Your task to perform on an android device: Go to Amazon Image 0: 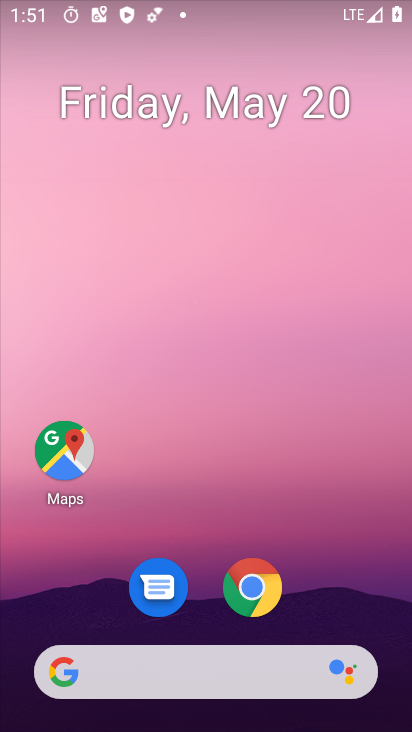
Step 0: drag from (335, 568) to (307, 199)
Your task to perform on an android device: Go to Amazon Image 1: 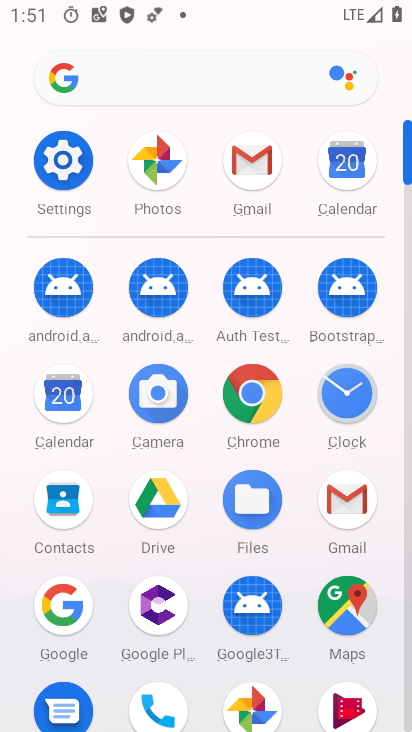
Step 1: click (252, 398)
Your task to perform on an android device: Go to Amazon Image 2: 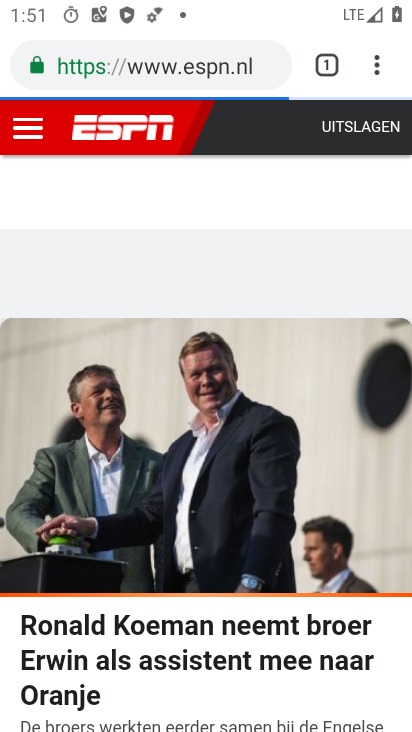
Step 2: click (201, 75)
Your task to perform on an android device: Go to Amazon Image 3: 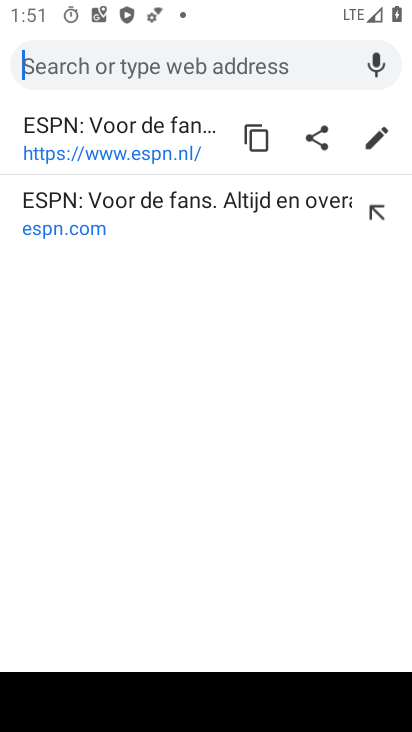
Step 3: type "amazon"
Your task to perform on an android device: Go to Amazon Image 4: 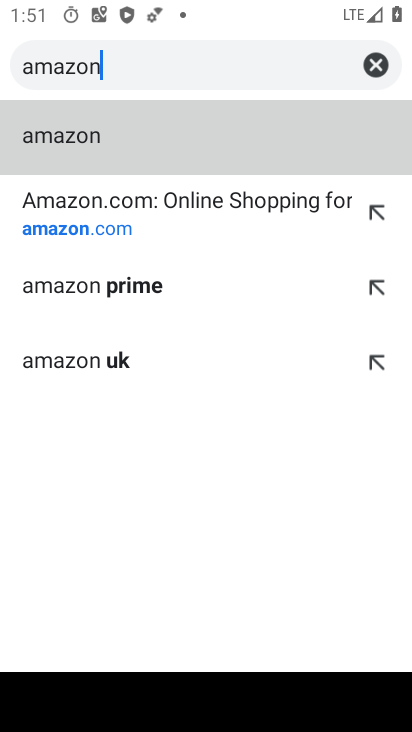
Step 4: click (97, 222)
Your task to perform on an android device: Go to Amazon Image 5: 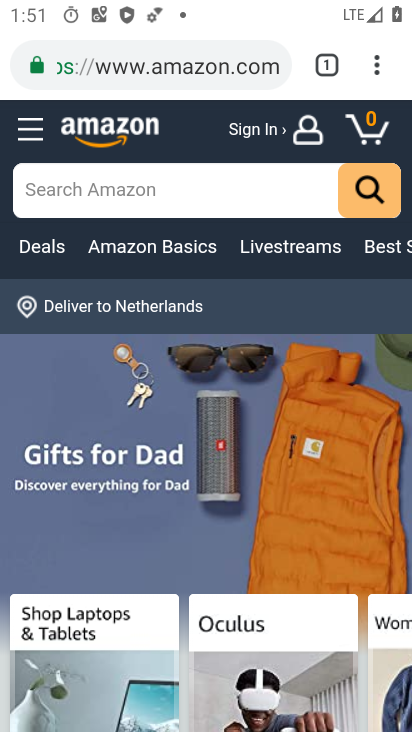
Step 5: task complete